Your task to perform on an android device: open a new tab in the chrome app Image 0: 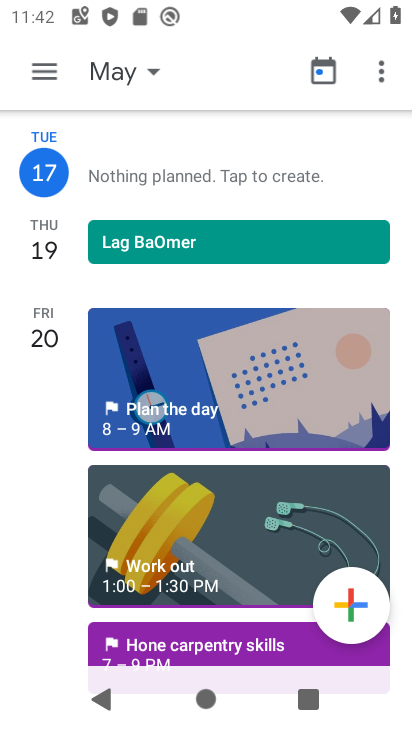
Step 0: press home button
Your task to perform on an android device: open a new tab in the chrome app Image 1: 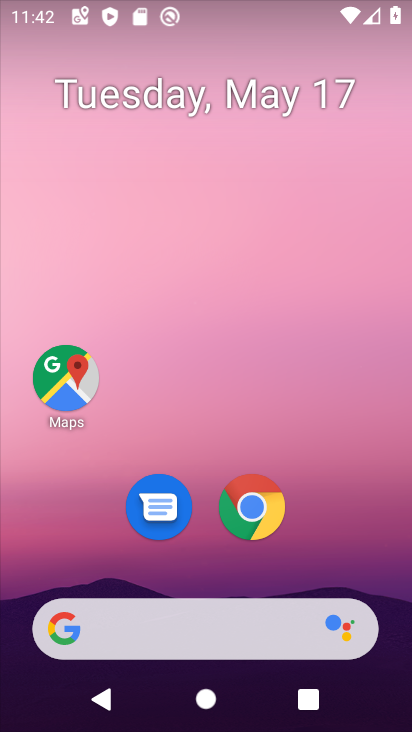
Step 1: click (238, 508)
Your task to perform on an android device: open a new tab in the chrome app Image 2: 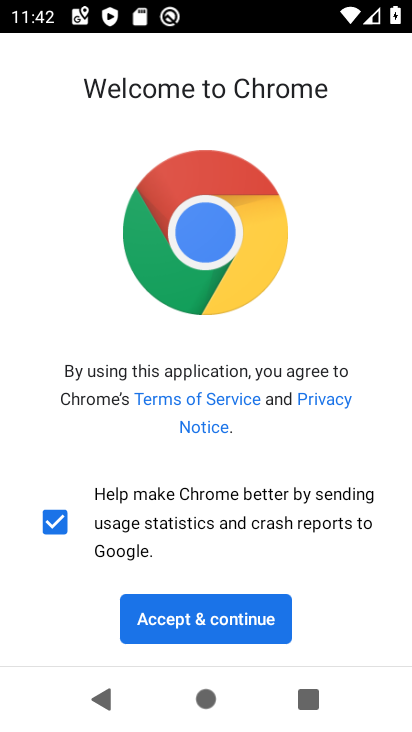
Step 2: click (226, 610)
Your task to perform on an android device: open a new tab in the chrome app Image 3: 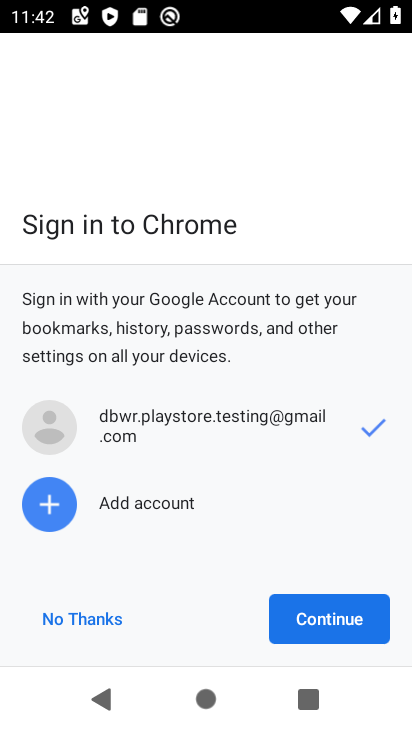
Step 3: click (330, 622)
Your task to perform on an android device: open a new tab in the chrome app Image 4: 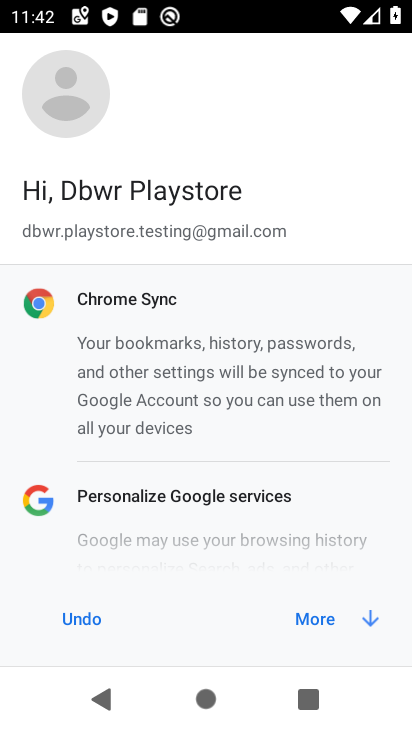
Step 4: click (312, 614)
Your task to perform on an android device: open a new tab in the chrome app Image 5: 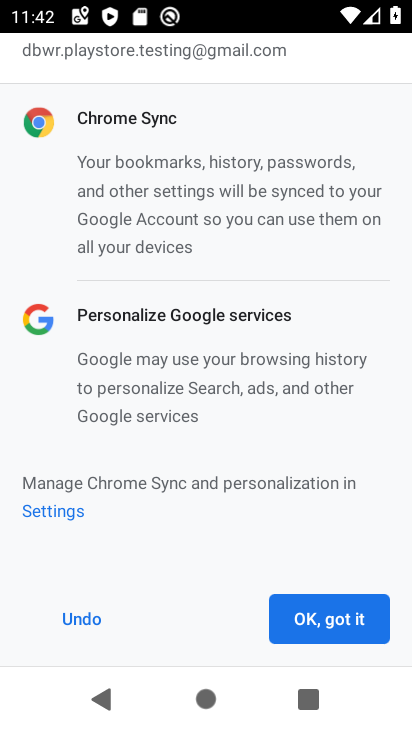
Step 5: click (326, 626)
Your task to perform on an android device: open a new tab in the chrome app Image 6: 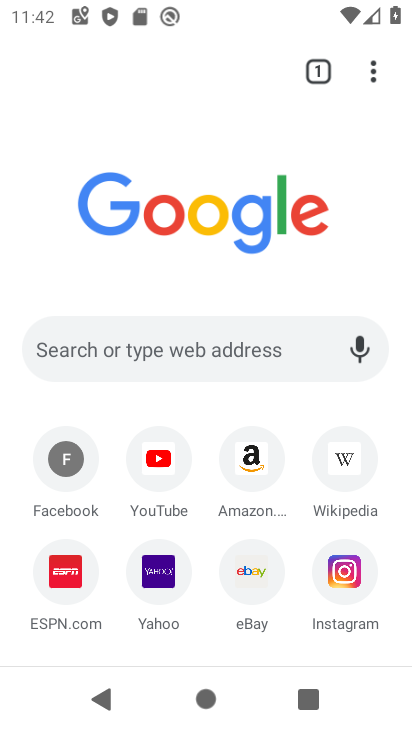
Step 6: click (369, 67)
Your task to perform on an android device: open a new tab in the chrome app Image 7: 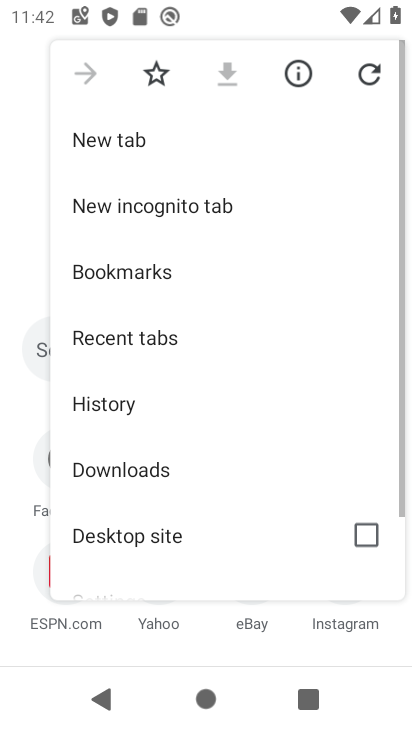
Step 7: click (133, 144)
Your task to perform on an android device: open a new tab in the chrome app Image 8: 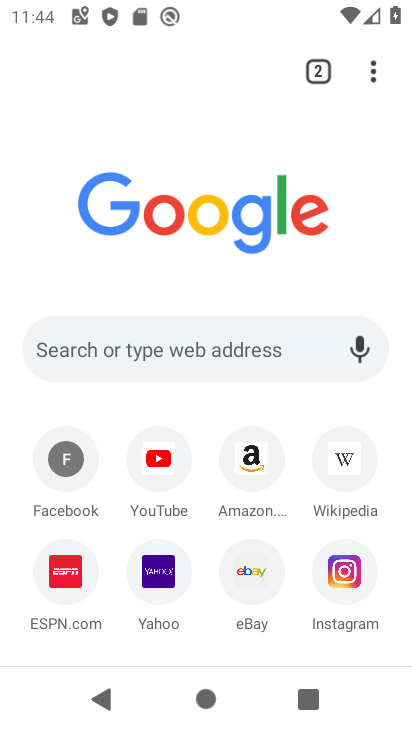
Step 8: task complete